Your task to perform on an android device: find snoozed emails in the gmail app Image 0: 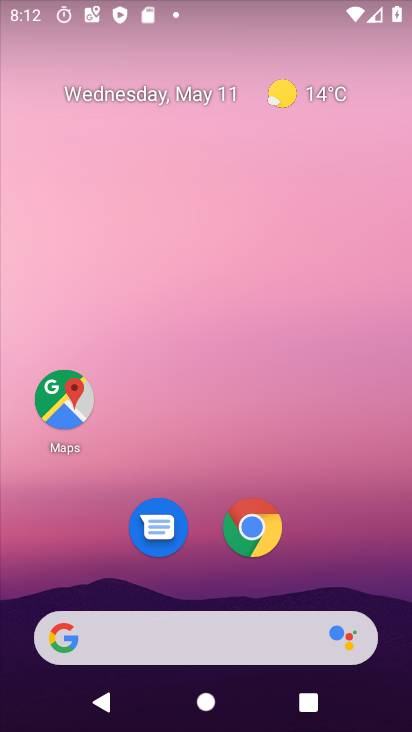
Step 0: drag from (237, 618) to (243, 164)
Your task to perform on an android device: find snoozed emails in the gmail app Image 1: 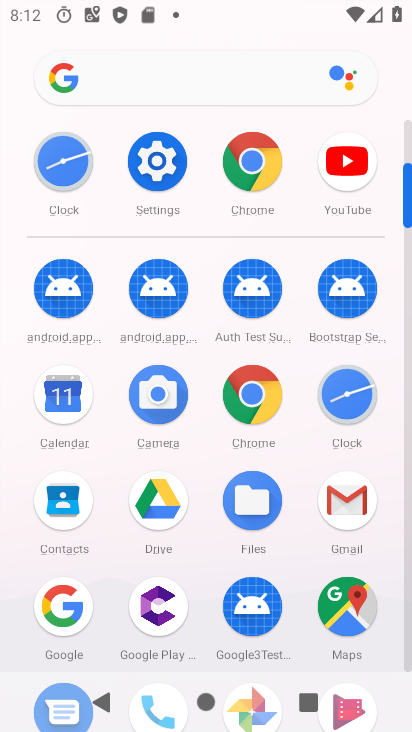
Step 1: click (358, 501)
Your task to perform on an android device: find snoozed emails in the gmail app Image 2: 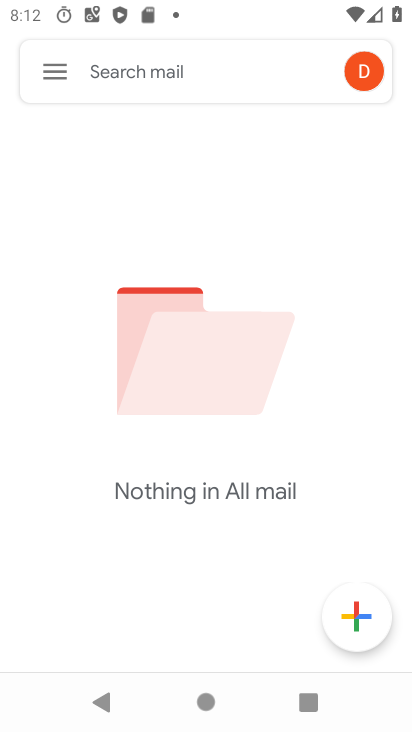
Step 2: click (63, 71)
Your task to perform on an android device: find snoozed emails in the gmail app Image 3: 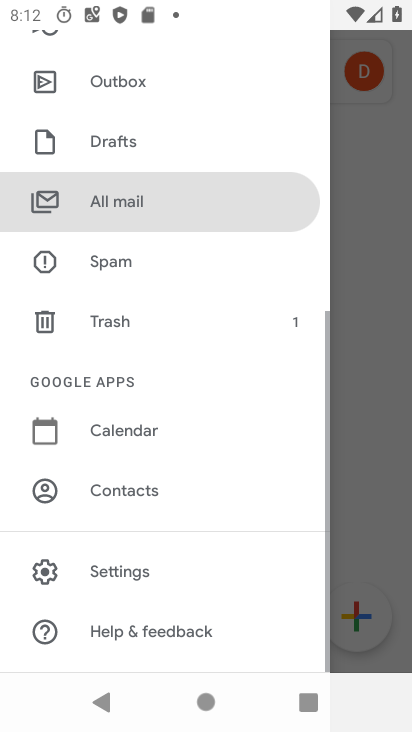
Step 3: drag from (144, 225) to (69, 547)
Your task to perform on an android device: find snoozed emails in the gmail app Image 4: 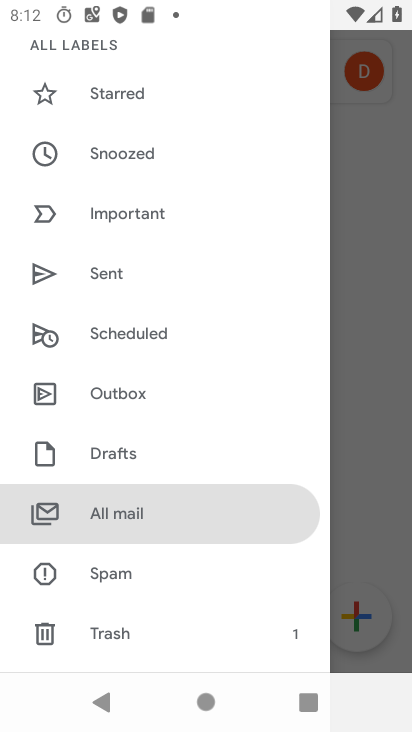
Step 4: drag from (132, 251) to (78, 425)
Your task to perform on an android device: find snoozed emails in the gmail app Image 5: 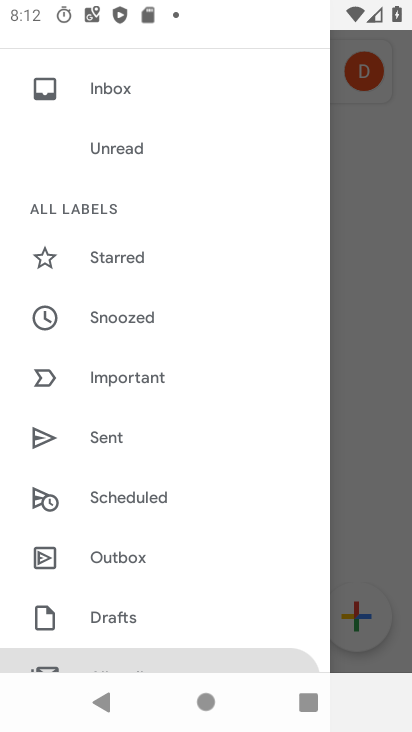
Step 5: click (144, 316)
Your task to perform on an android device: find snoozed emails in the gmail app Image 6: 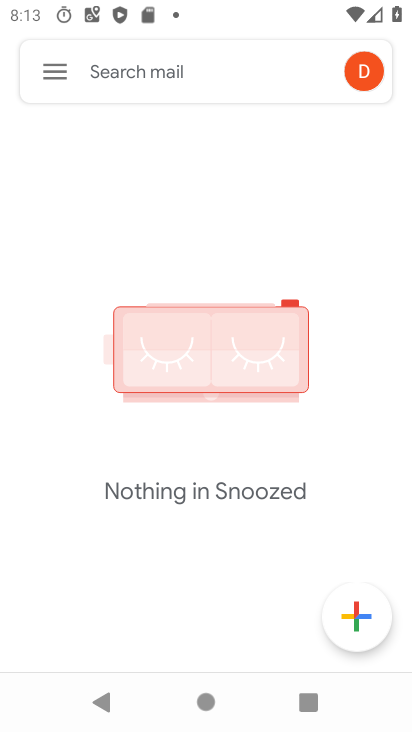
Step 6: task complete